Your task to perform on an android device: check storage Image 0: 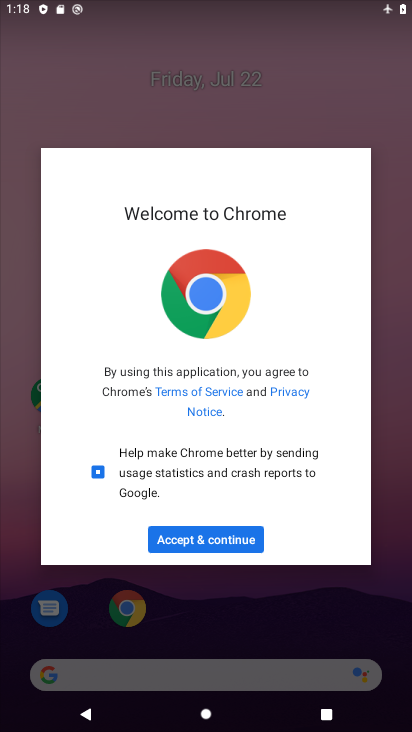
Step 0: press home button
Your task to perform on an android device: check storage Image 1: 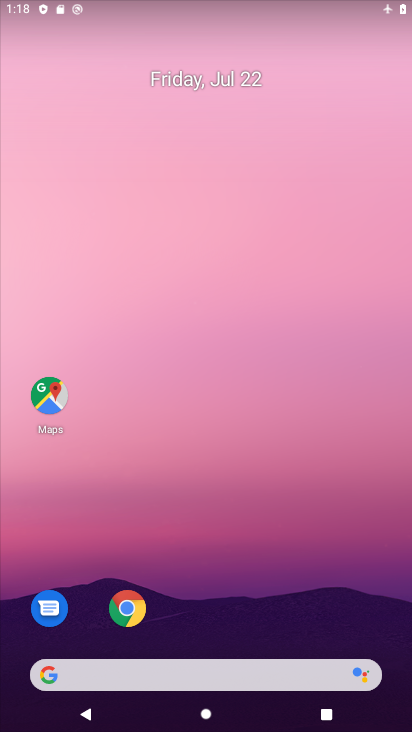
Step 1: drag from (259, 726) to (259, 301)
Your task to perform on an android device: check storage Image 2: 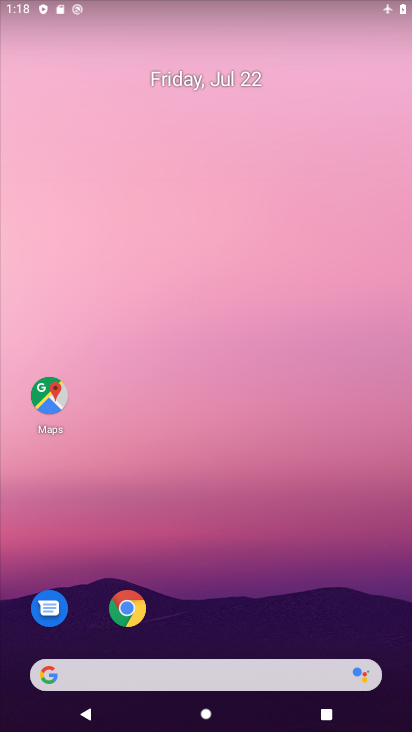
Step 2: drag from (256, 714) to (256, 49)
Your task to perform on an android device: check storage Image 3: 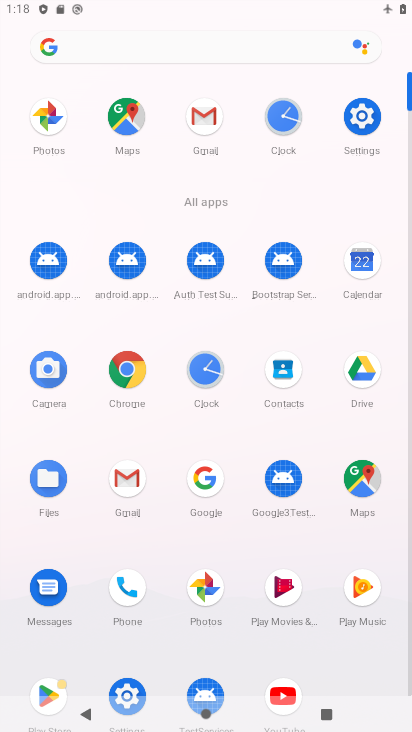
Step 3: click (359, 123)
Your task to perform on an android device: check storage Image 4: 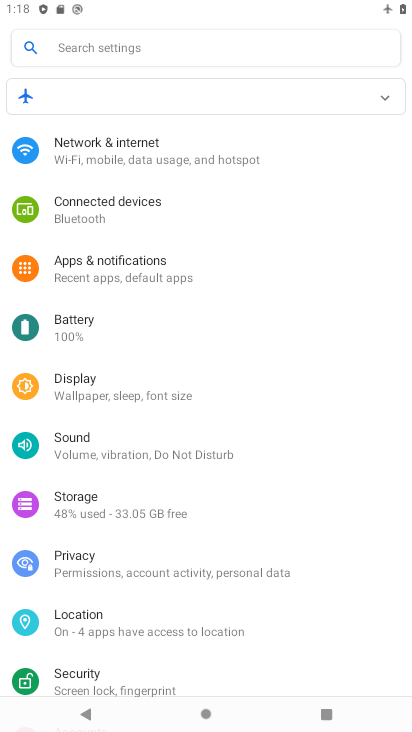
Step 4: click (67, 503)
Your task to perform on an android device: check storage Image 5: 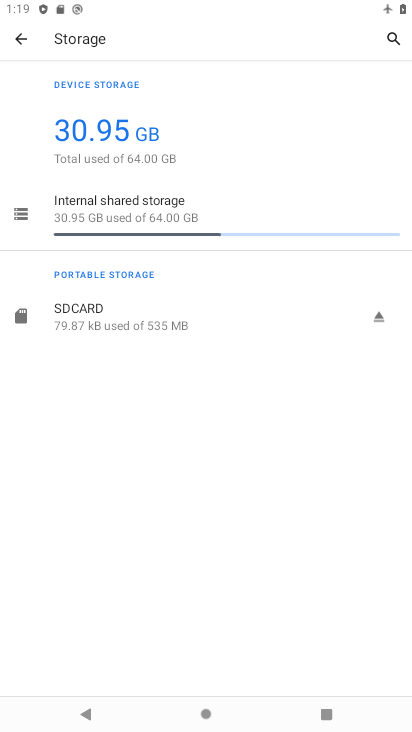
Step 5: task complete